Your task to perform on an android device: Show me the alarms in the clock app Image 0: 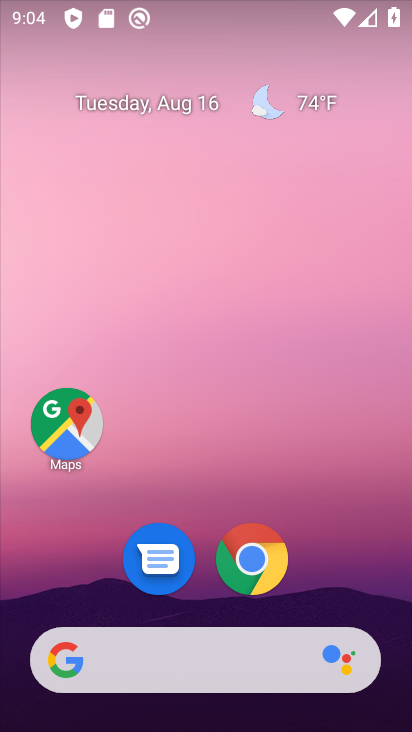
Step 0: drag from (175, 661) to (327, 88)
Your task to perform on an android device: Show me the alarms in the clock app Image 1: 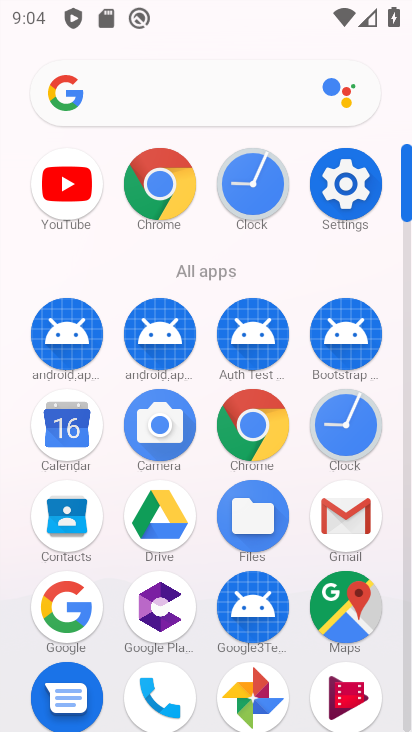
Step 1: click (254, 185)
Your task to perform on an android device: Show me the alarms in the clock app Image 2: 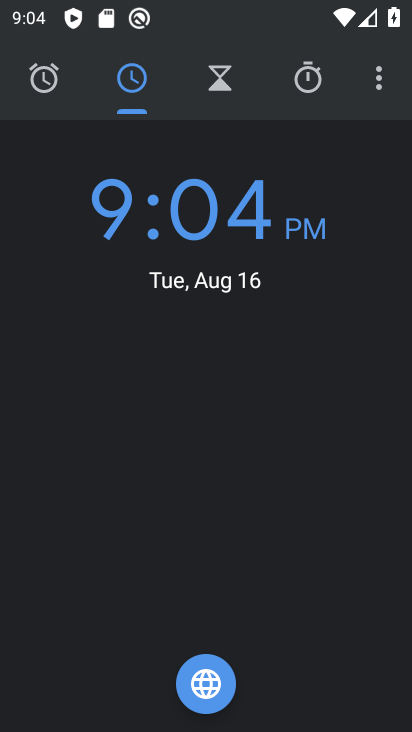
Step 2: click (50, 84)
Your task to perform on an android device: Show me the alarms in the clock app Image 3: 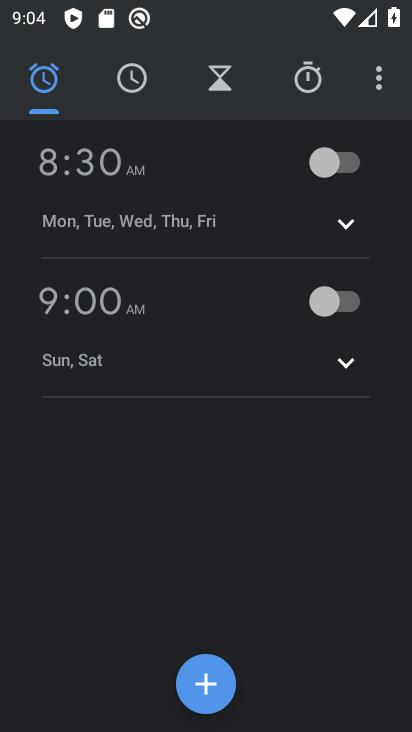
Step 3: click (87, 170)
Your task to perform on an android device: Show me the alarms in the clock app Image 4: 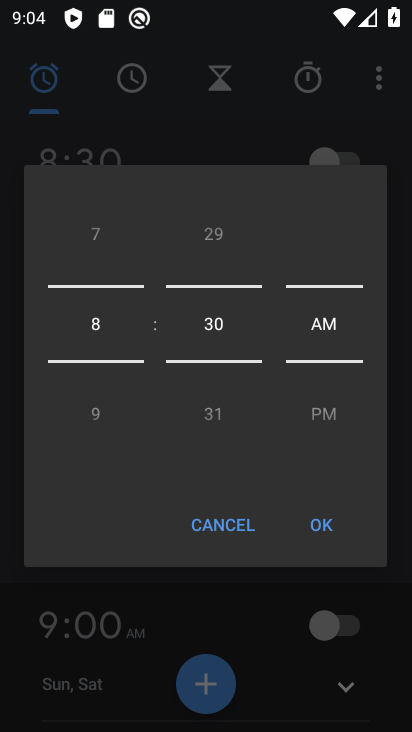
Step 4: click (100, 246)
Your task to perform on an android device: Show me the alarms in the clock app Image 5: 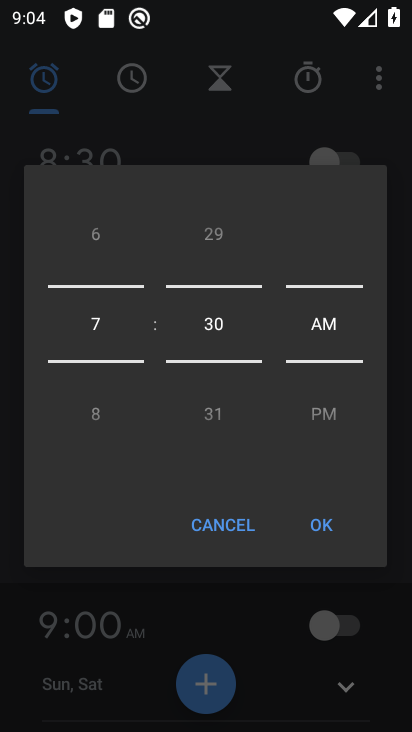
Step 5: click (100, 246)
Your task to perform on an android device: Show me the alarms in the clock app Image 6: 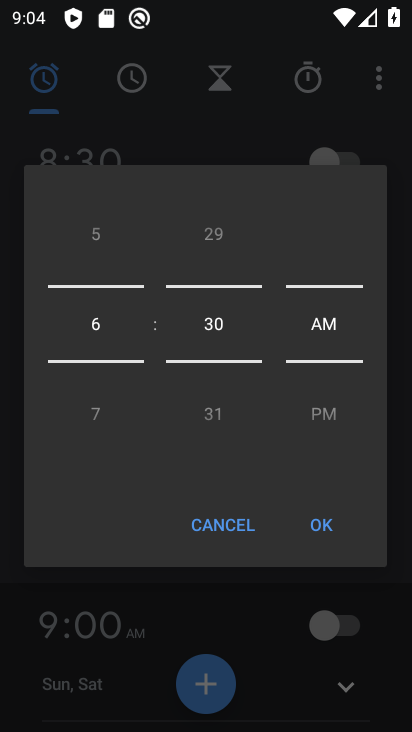
Step 6: click (100, 246)
Your task to perform on an android device: Show me the alarms in the clock app Image 7: 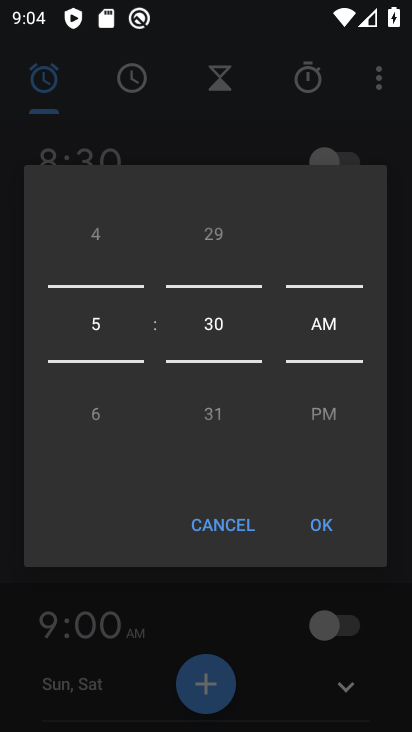
Step 7: click (210, 246)
Your task to perform on an android device: Show me the alarms in the clock app Image 8: 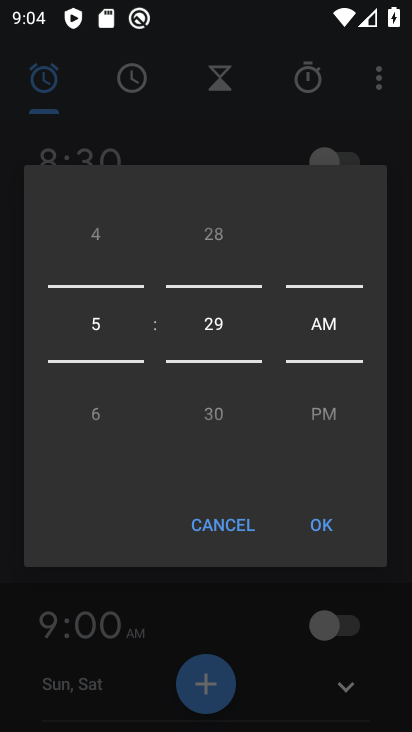
Step 8: click (210, 246)
Your task to perform on an android device: Show me the alarms in the clock app Image 9: 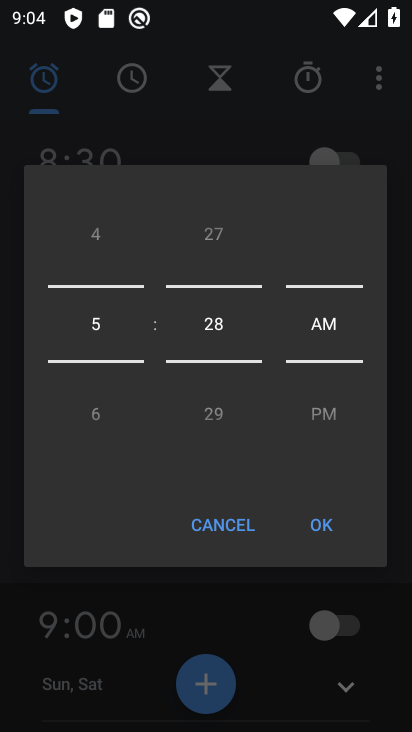
Step 9: click (210, 246)
Your task to perform on an android device: Show me the alarms in the clock app Image 10: 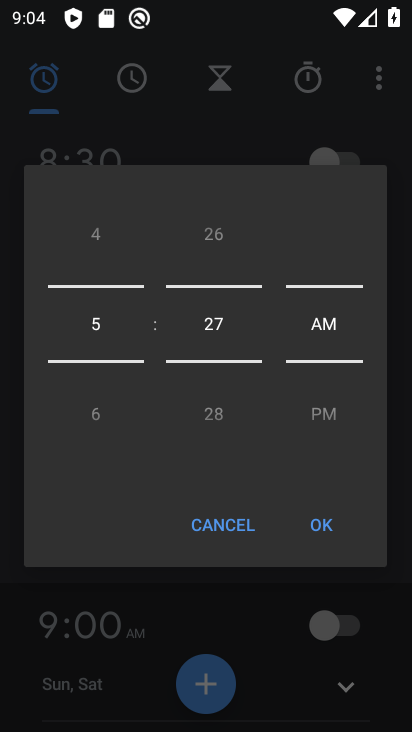
Step 10: click (340, 404)
Your task to perform on an android device: Show me the alarms in the clock app Image 11: 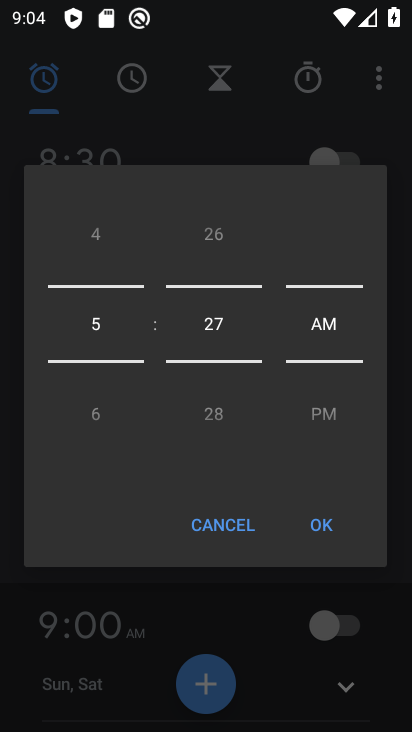
Step 11: click (319, 528)
Your task to perform on an android device: Show me the alarms in the clock app Image 12: 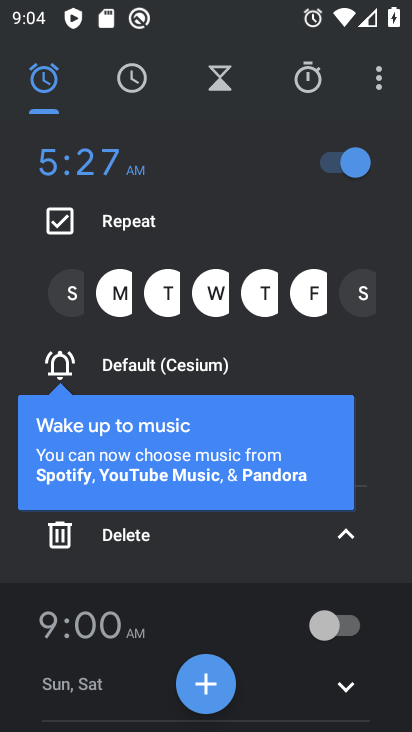
Step 12: click (345, 545)
Your task to perform on an android device: Show me the alarms in the clock app Image 13: 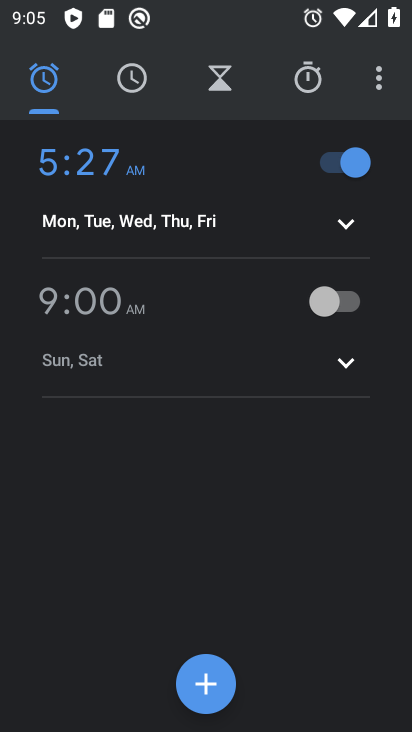
Step 13: task complete